Your task to perform on an android device: open wifi settings Image 0: 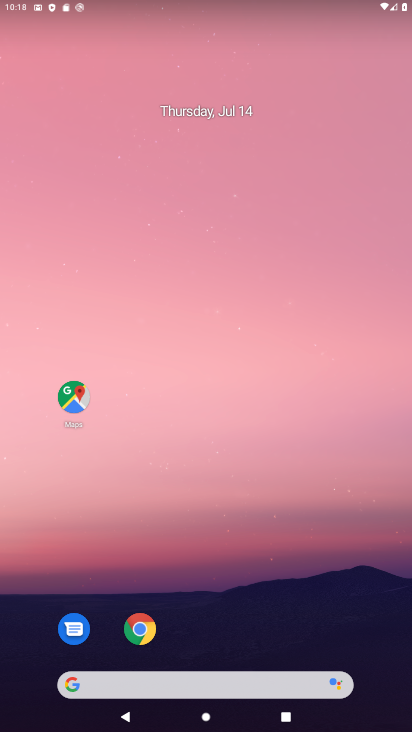
Step 0: drag from (256, 638) to (271, 13)
Your task to perform on an android device: open wifi settings Image 1: 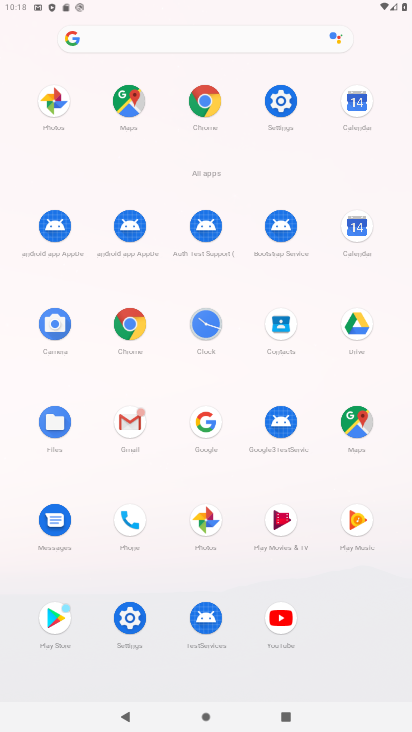
Step 1: click (287, 103)
Your task to perform on an android device: open wifi settings Image 2: 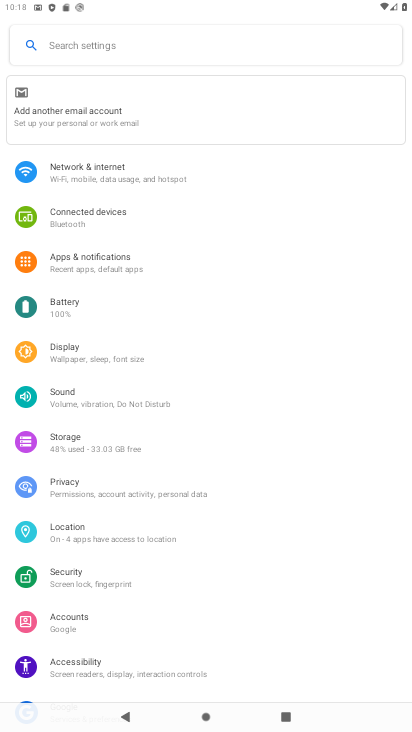
Step 2: click (182, 165)
Your task to perform on an android device: open wifi settings Image 3: 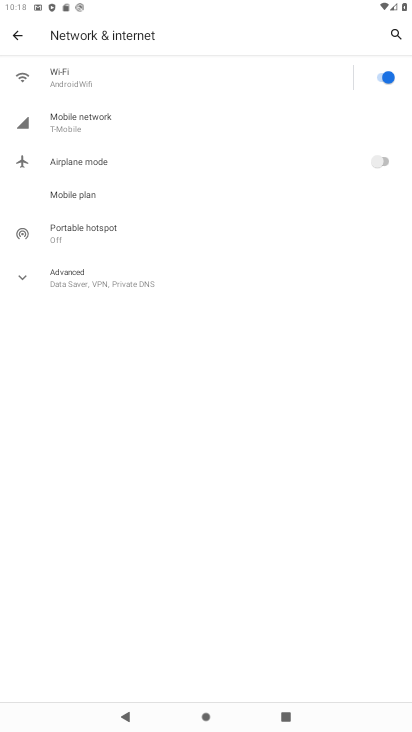
Step 3: click (104, 75)
Your task to perform on an android device: open wifi settings Image 4: 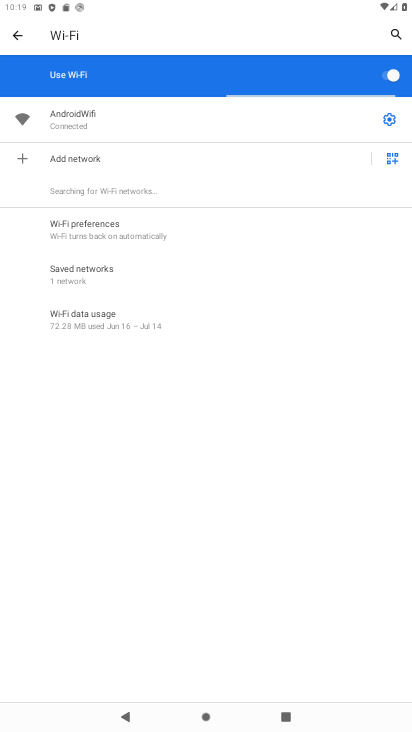
Step 4: task complete